Your task to perform on an android device: turn on javascript in the chrome app Image 0: 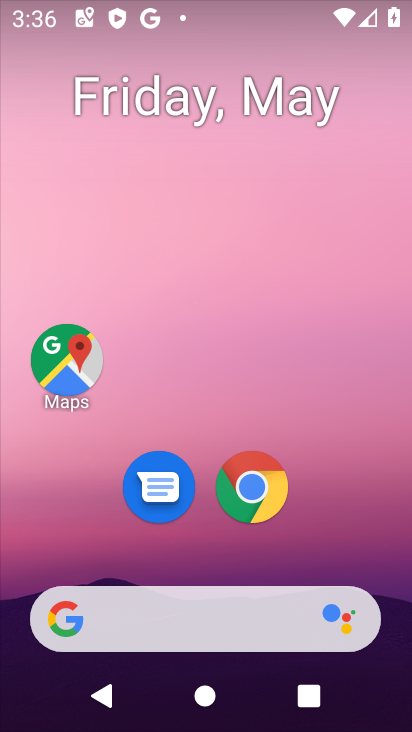
Step 0: drag from (392, 632) to (225, 11)
Your task to perform on an android device: turn on javascript in the chrome app Image 1: 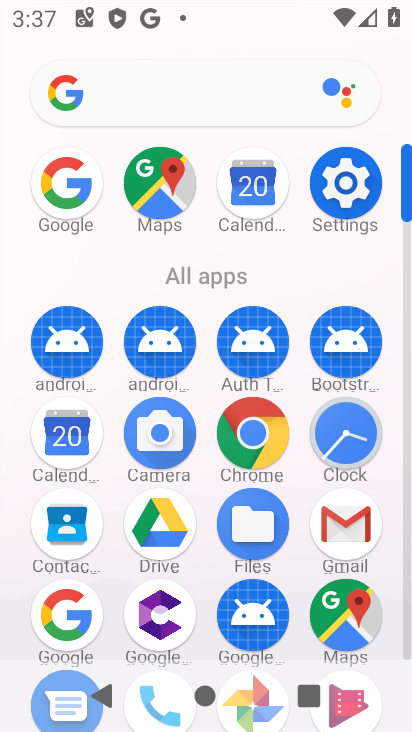
Step 1: click (257, 444)
Your task to perform on an android device: turn on javascript in the chrome app Image 2: 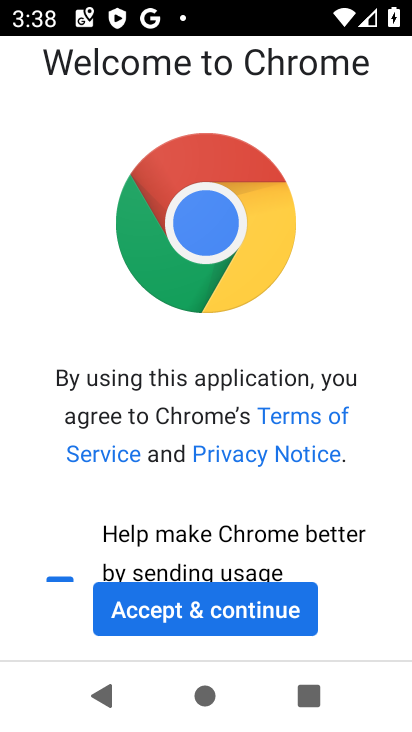
Step 2: click (222, 611)
Your task to perform on an android device: turn on javascript in the chrome app Image 3: 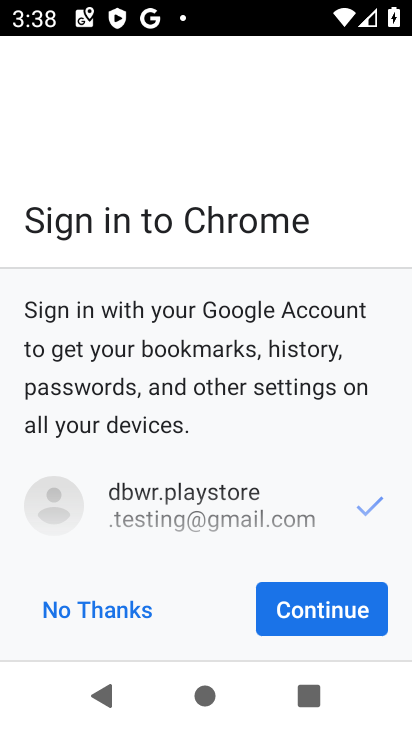
Step 3: click (306, 612)
Your task to perform on an android device: turn on javascript in the chrome app Image 4: 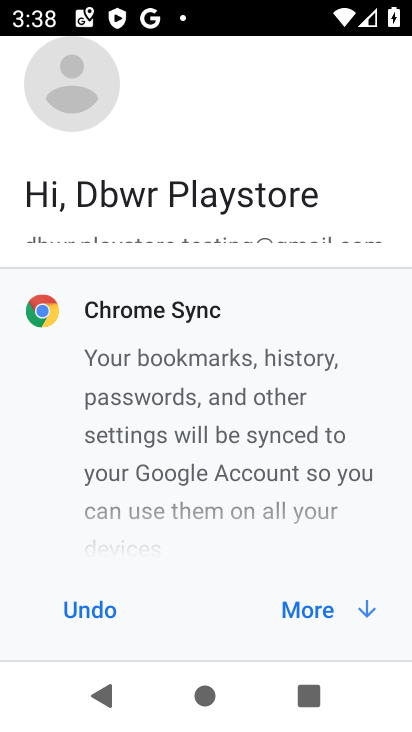
Step 4: click (306, 612)
Your task to perform on an android device: turn on javascript in the chrome app Image 5: 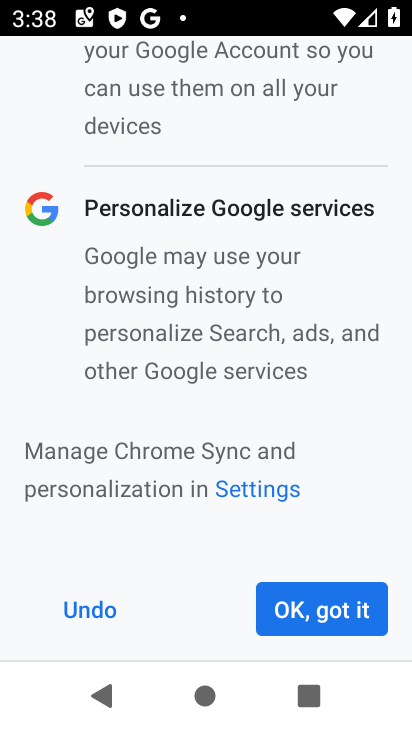
Step 5: click (306, 612)
Your task to perform on an android device: turn on javascript in the chrome app Image 6: 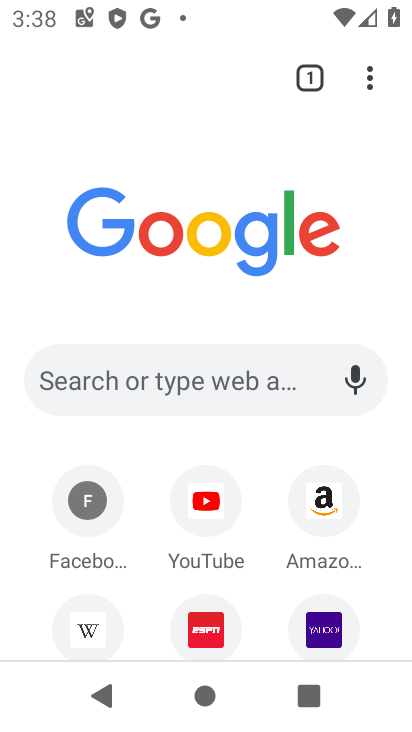
Step 6: click (363, 74)
Your task to perform on an android device: turn on javascript in the chrome app Image 7: 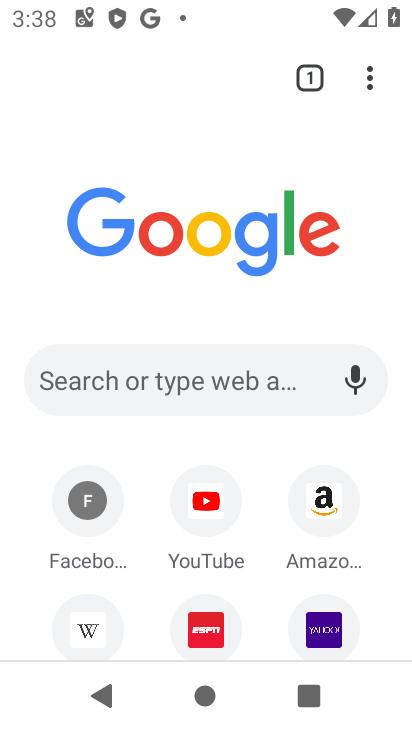
Step 7: click (367, 71)
Your task to perform on an android device: turn on javascript in the chrome app Image 8: 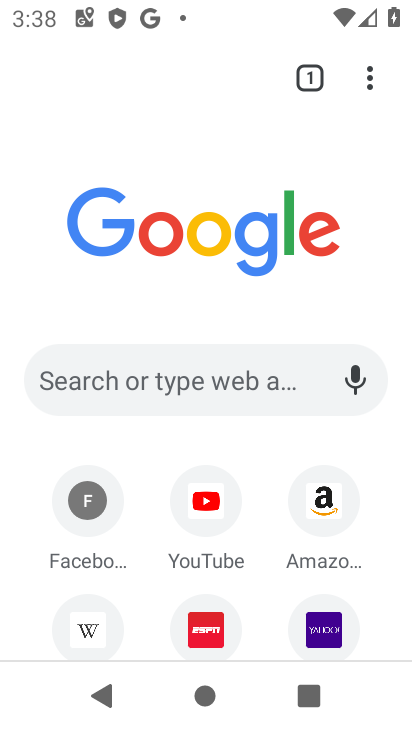
Step 8: click (367, 71)
Your task to perform on an android device: turn on javascript in the chrome app Image 9: 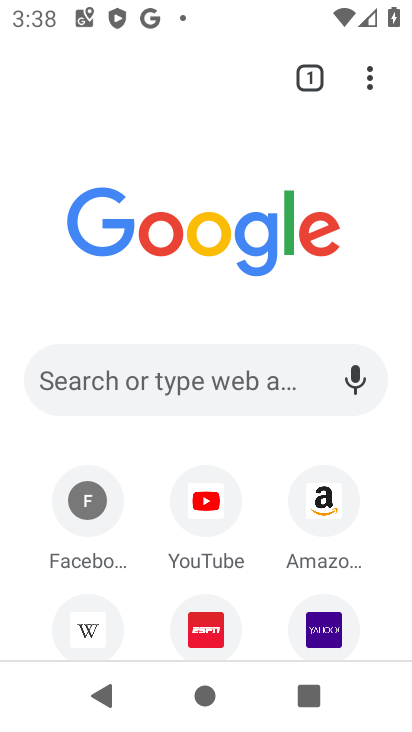
Step 9: click (369, 74)
Your task to perform on an android device: turn on javascript in the chrome app Image 10: 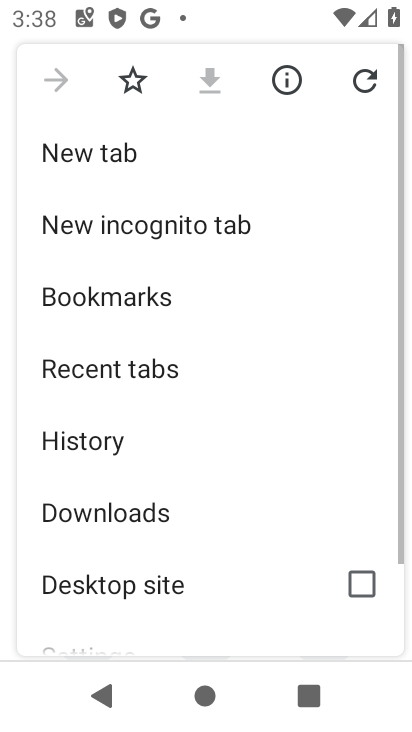
Step 10: drag from (205, 645) to (235, 152)
Your task to perform on an android device: turn on javascript in the chrome app Image 11: 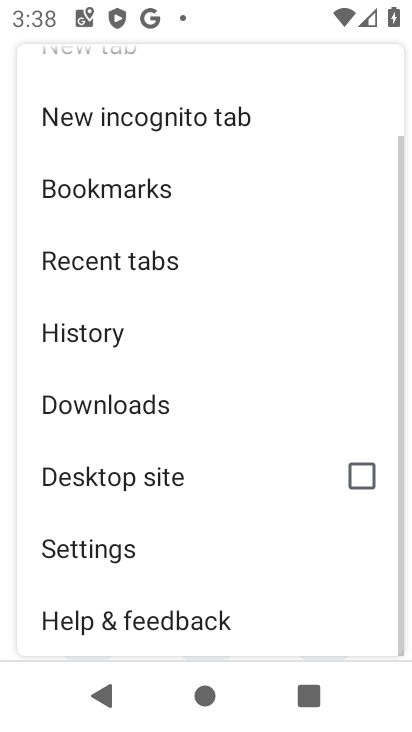
Step 11: click (107, 554)
Your task to perform on an android device: turn on javascript in the chrome app Image 12: 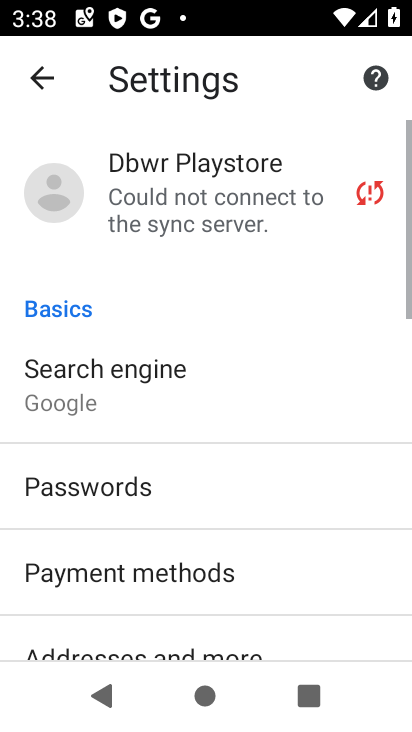
Step 12: drag from (110, 604) to (186, 123)
Your task to perform on an android device: turn on javascript in the chrome app Image 13: 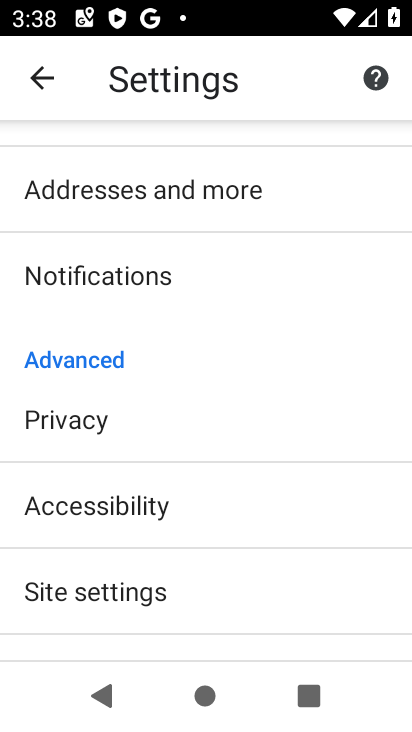
Step 13: click (128, 600)
Your task to perform on an android device: turn on javascript in the chrome app Image 14: 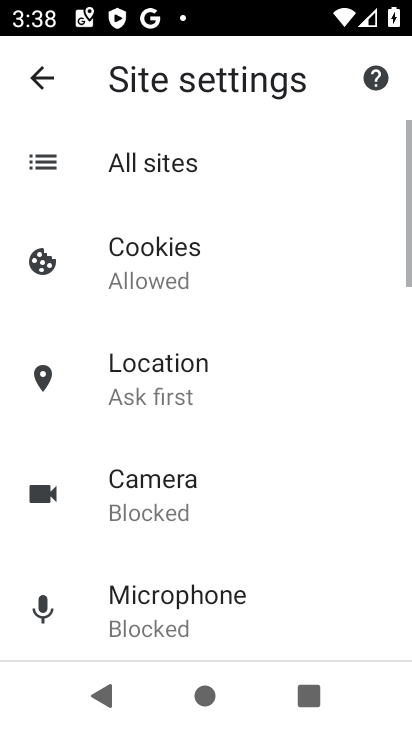
Step 14: drag from (127, 624) to (241, 159)
Your task to perform on an android device: turn on javascript in the chrome app Image 15: 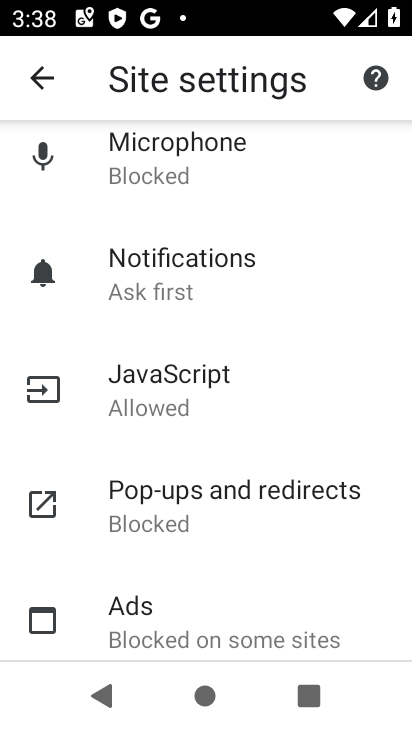
Step 15: click (244, 376)
Your task to perform on an android device: turn on javascript in the chrome app Image 16: 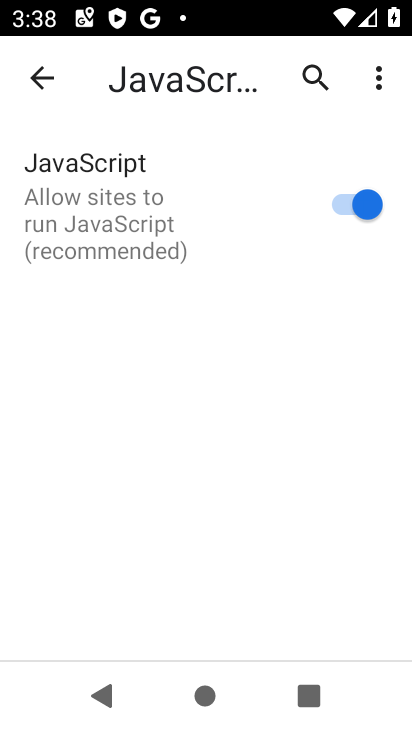
Step 16: task complete